Your task to perform on an android device: Check the news Image 0: 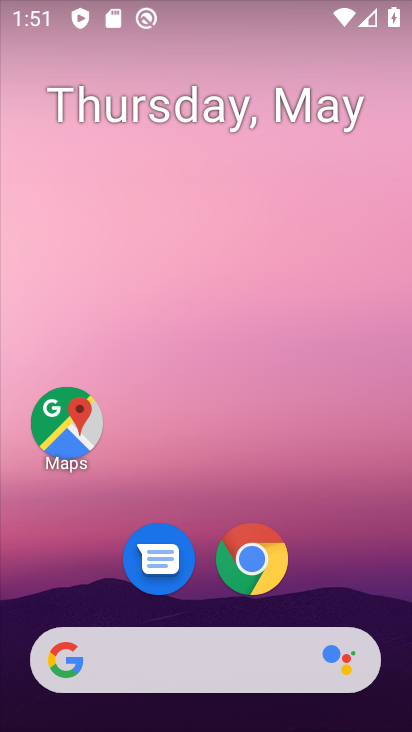
Step 0: drag from (210, 599) to (232, 185)
Your task to perform on an android device: Check the news Image 1: 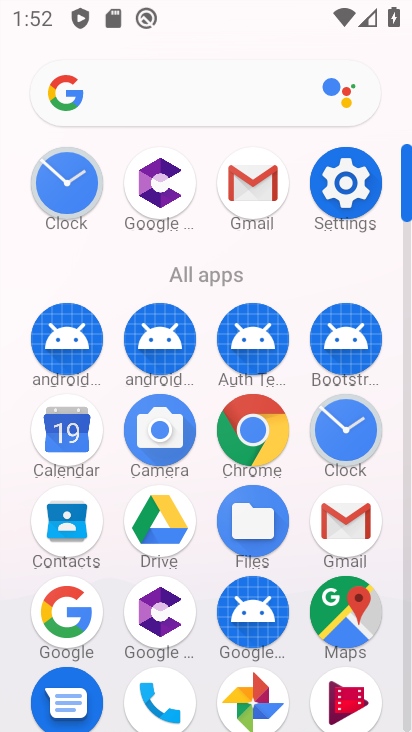
Step 1: click (68, 620)
Your task to perform on an android device: Check the news Image 2: 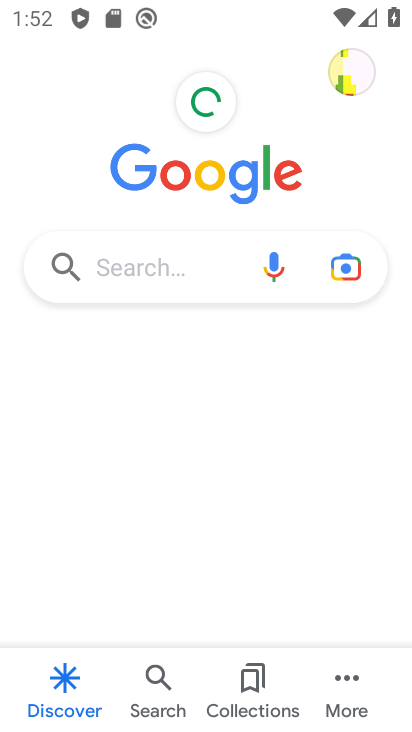
Step 2: click (171, 264)
Your task to perform on an android device: Check the news Image 3: 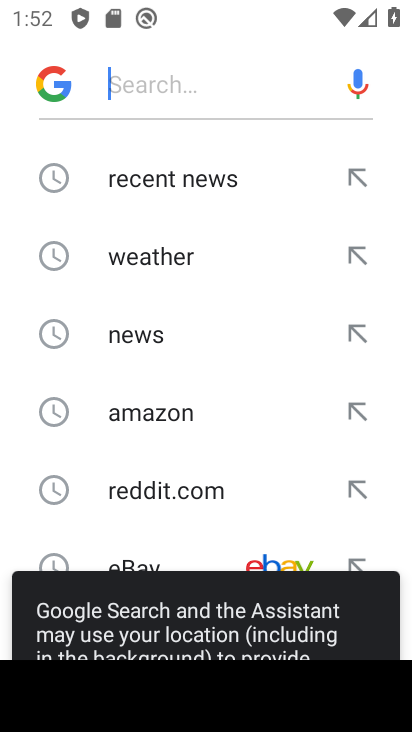
Step 3: click (157, 337)
Your task to perform on an android device: Check the news Image 4: 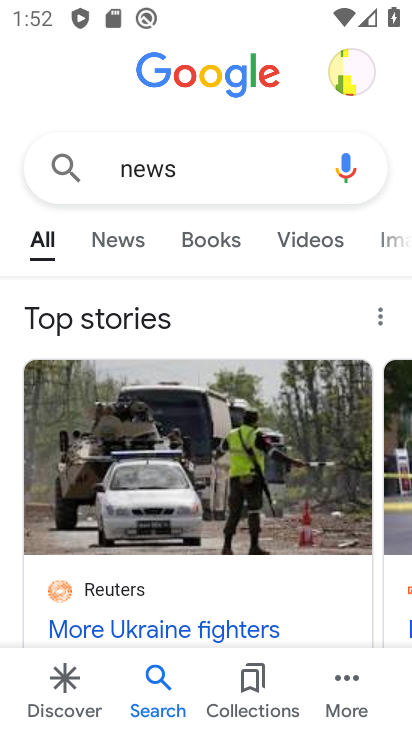
Step 4: task complete